Your task to perform on an android device: What is the recent news? Image 0: 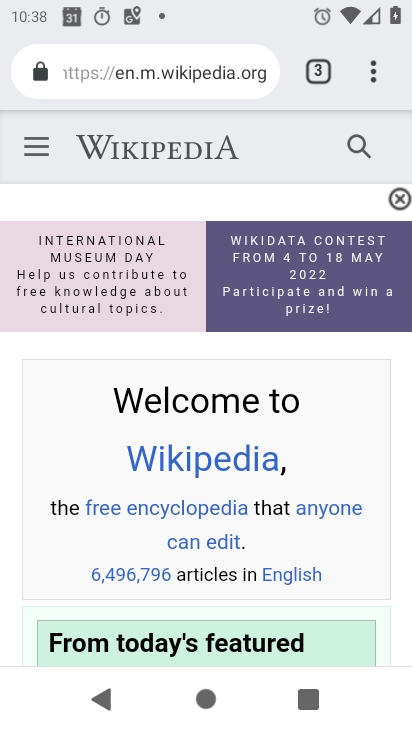
Step 0: press home button
Your task to perform on an android device: What is the recent news? Image 1: 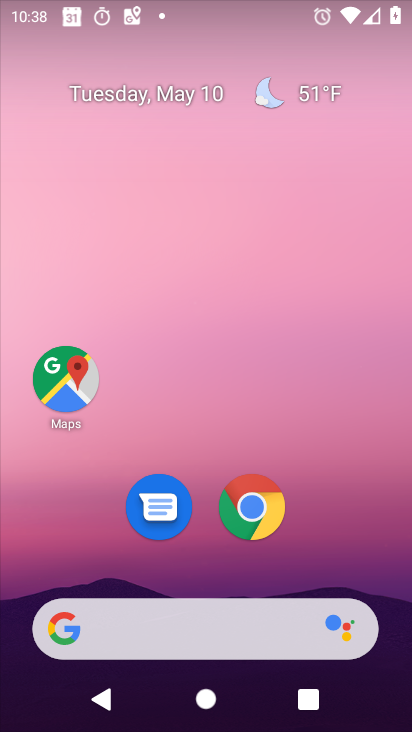
Step 1: click (266, 516)
Your task to perform on an android device: What is the recent news? Image 2: 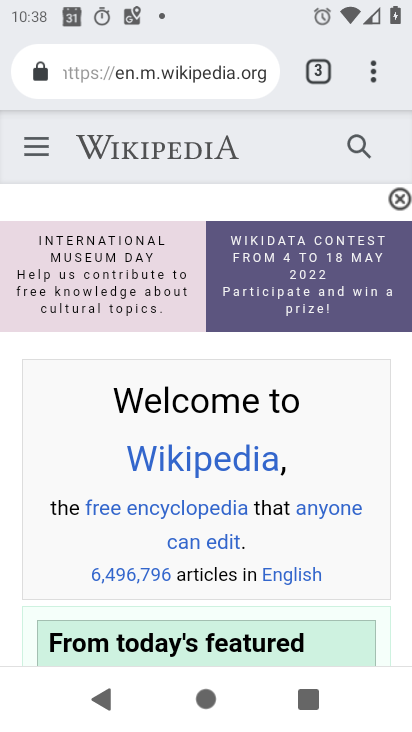
Step 2: click (311, 72)
Your task to perform on an android device: What is the recent news? Image 3: 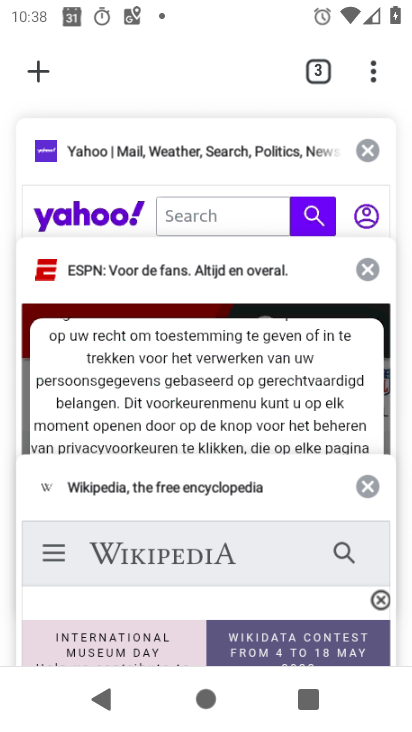
Step 3: click (22, 58)
Your task to perform on an android device: What is the recent news? Image 4: 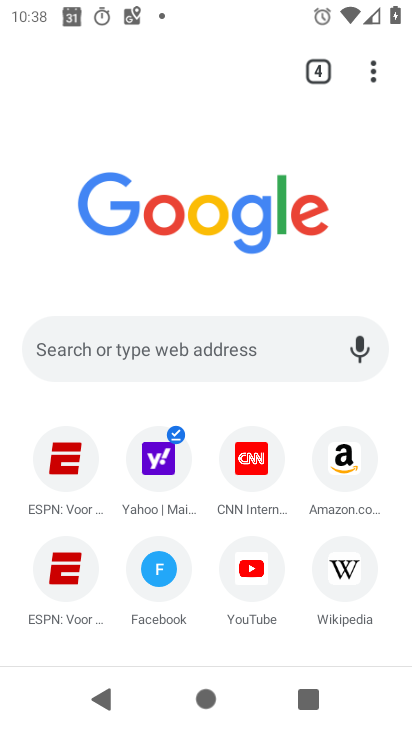
Step 4: task complete